Your task to perform on an android device: toggle pop-ups in chrome Image 0: 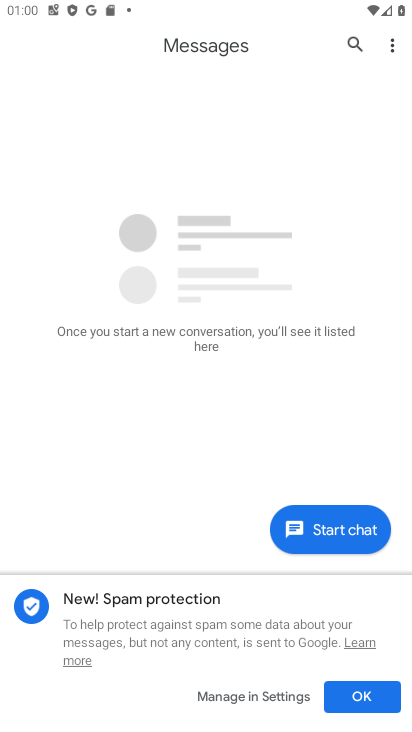
Step 0: press home button
Your task to perform on an android device: toggle pop-ups in chrome Image 1: 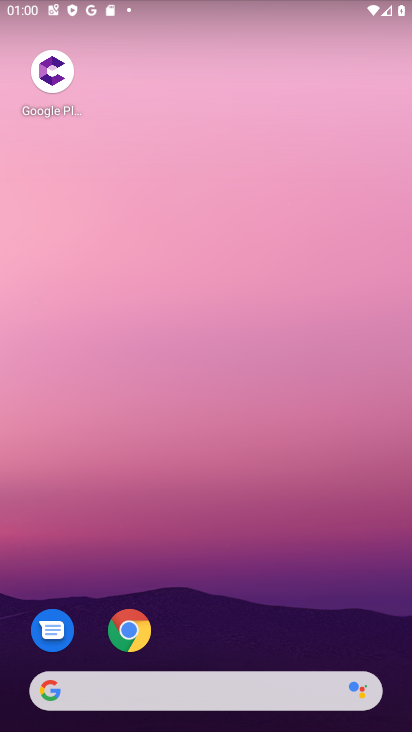
Step 1: click (133, 633)
Your task to perform on an android device: toggle pop-ups in chrome Image 2: 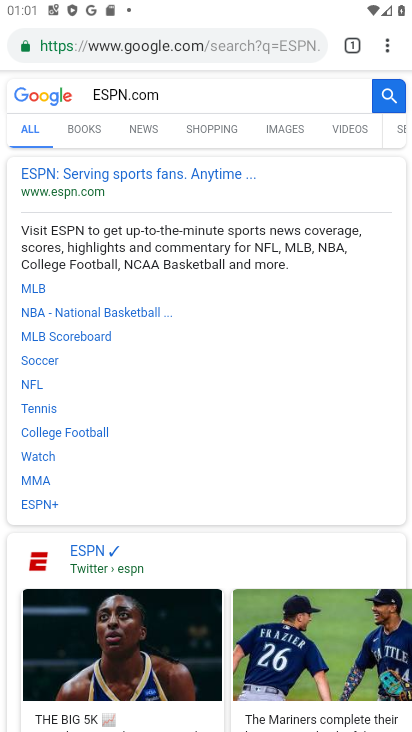
Step 2: click (379, 50)
Your task to perform on an android device: toggle pop-ups in chrome Image 3: 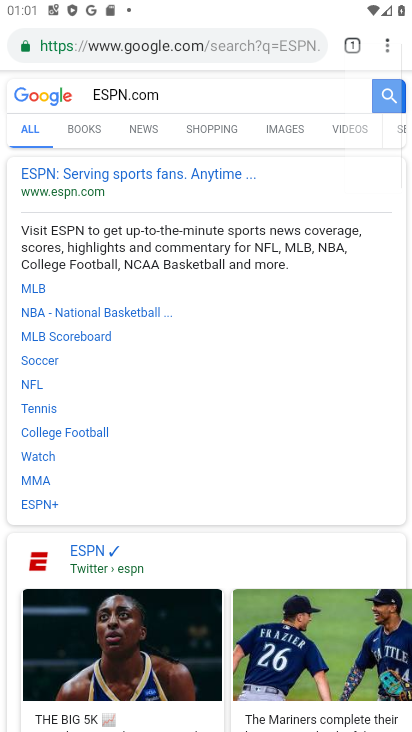
Step 3: click (388, 211)
Your task to perform on an android device: toggle pop-ups in chrome Image 4: 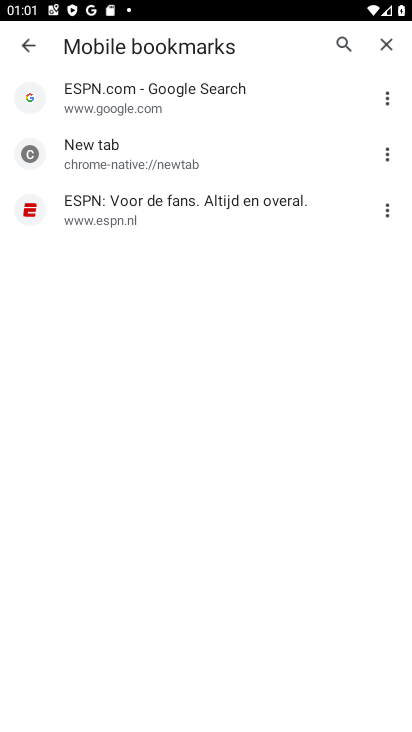
Step 4: task complete